Your task to perform on an android device: Open the Play Movies app and select the watchlist tab. Image 0: 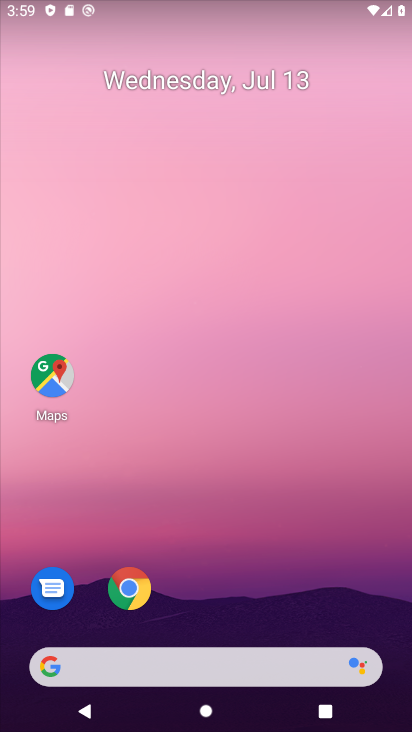
Step 0: drag from (22, 690) to (292, 31)
Your task to perform on an android device: Open the Play Movies app and select the watchlist tab. Image 1: 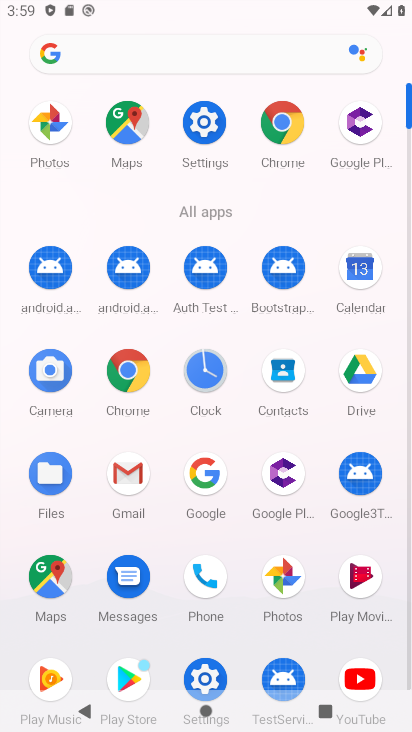
Step 1: click (358, 581)
Your task to perform on an android device: Open the Play Movies app and select the watchlist tab. Image 2: 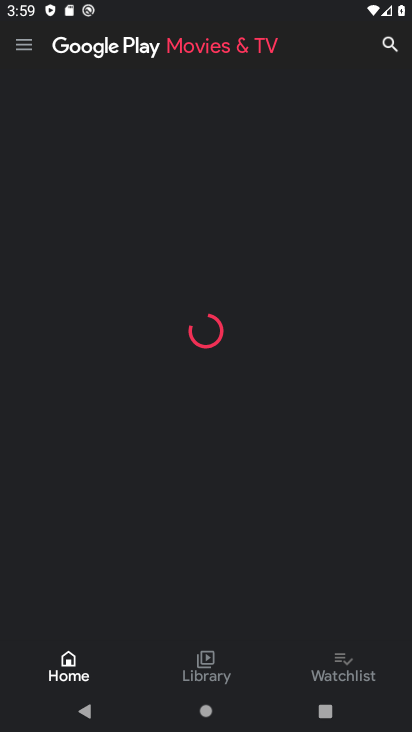
Step 2: click (344, 659)
Your task to perform on an android device: Open the Play Movies app and select the watchlist tab. Image 3: 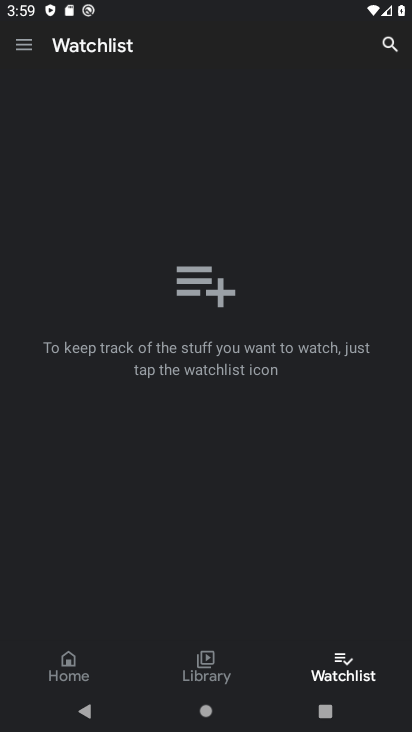
Step 3: task complete